Your task to perform on an android device: Open Google Chrome and click the shortcut for Amazon.com Image 0: 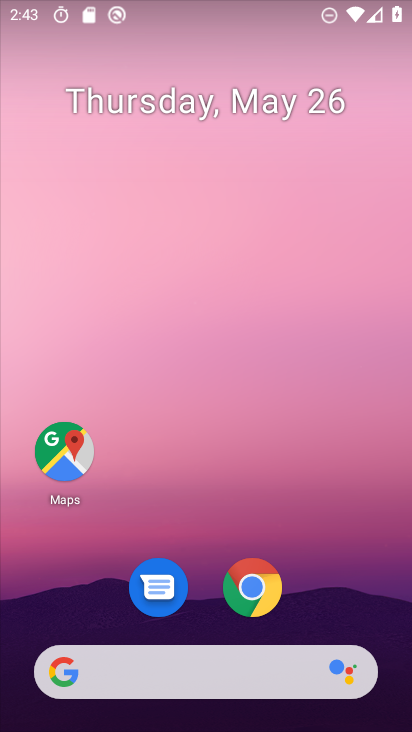
Step 0: drag from (325, 530) to (322, 161)
Your task to perform on an android device: Open Google Chrome and click the shortcut for Amazon.com Image 1: 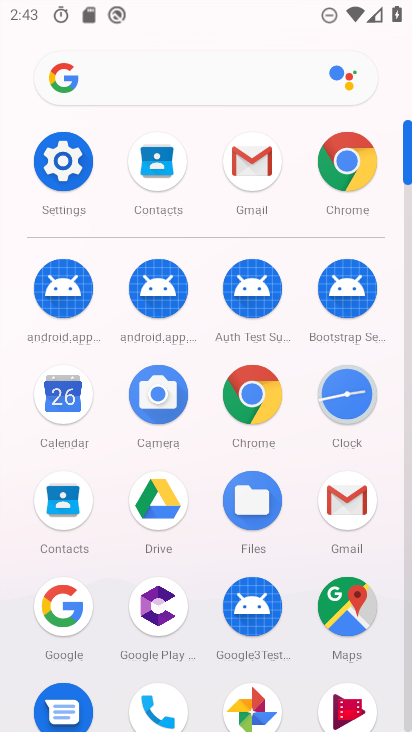
Step 1: click (244, 396)
Your task to perform on an android device: Open Google Chrome and click the shortcut for Amazon.com Image 2: 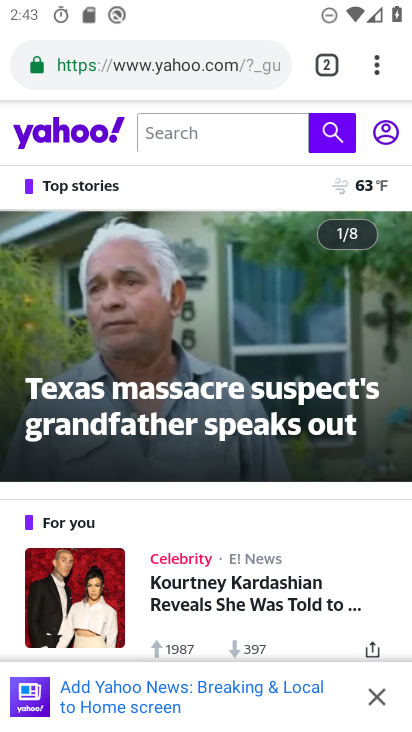
Step 2: click (168, 58)
Your task to perform on an android device: Open Google Chrome and click the shortcut for Amazon.com Image 3: 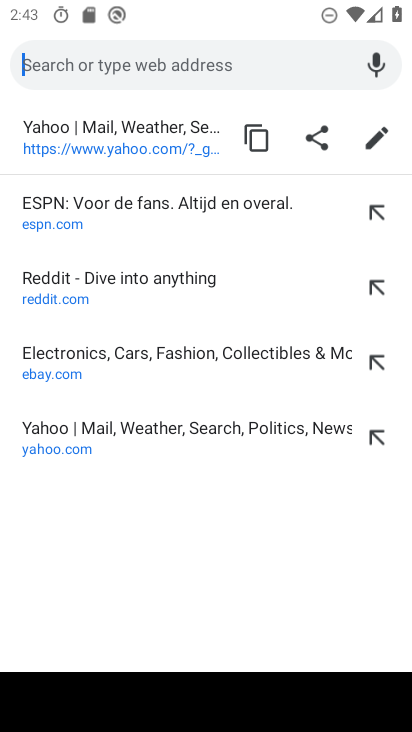
Step 3: type "amazon"
Your task to perform on an android device: Open Google Chrome and click the shortcut for Amazon.com Image 4: 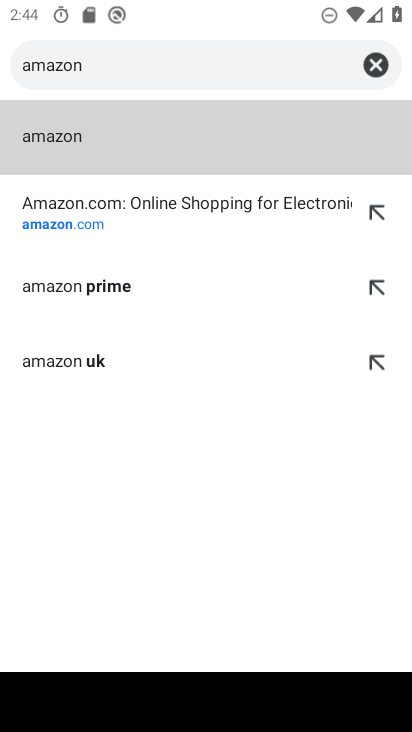
Step 4: click (42, 227)
Your task to perform on an android device: Open Google Chrome and click the shortcut for Amazon.com Image 5: 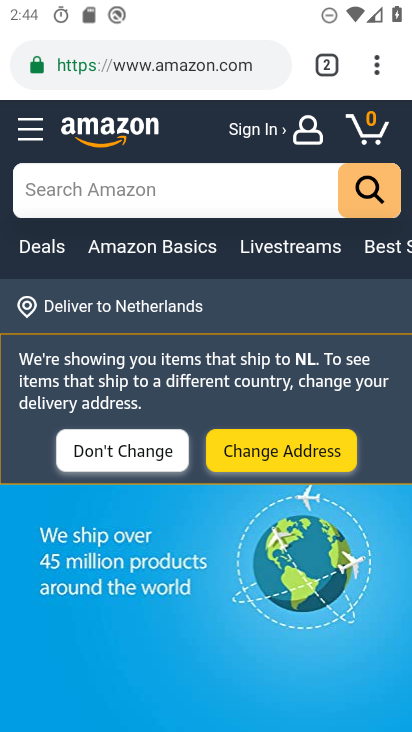
Step 5: task complete